Your task to perform on an android device: turn notification dots on Image 0: 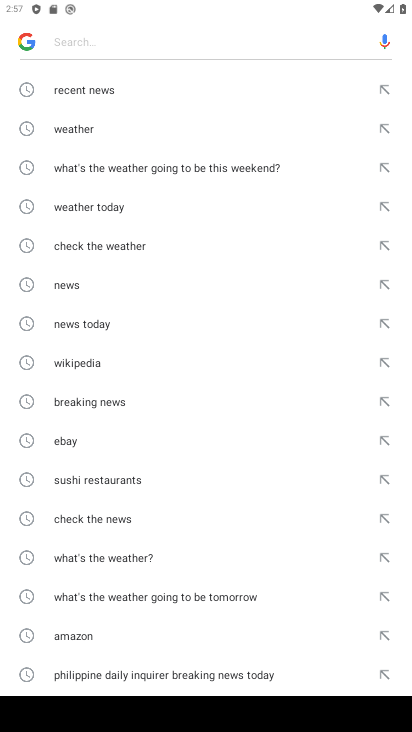
Step 0: press back button
Your task to perform on an android device: turn notification dots on Image 1: 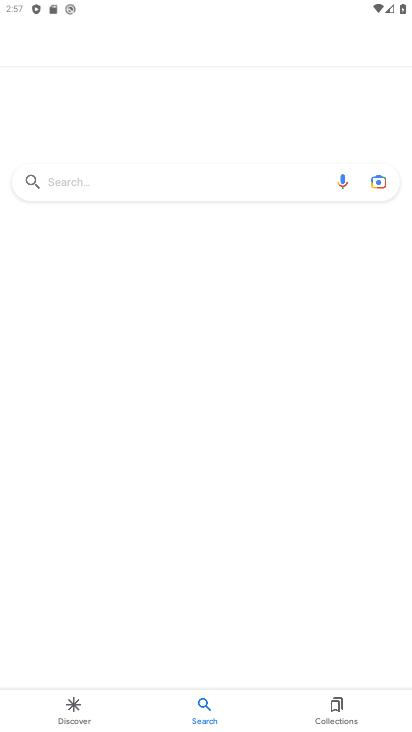
Step 1: press back button
Your task to perform on an android device: turn notification dots on Image 2: 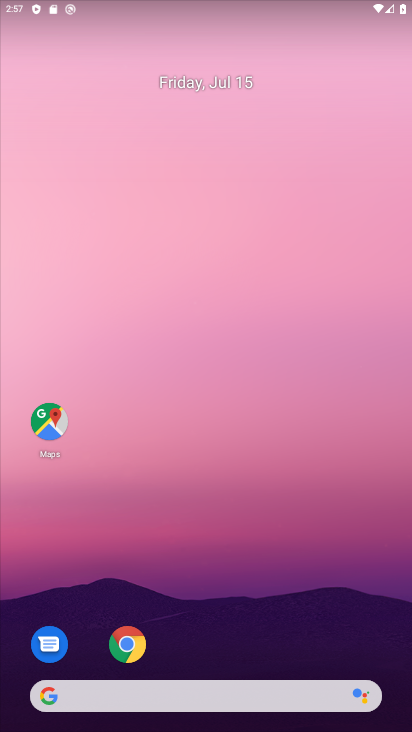
Step 2: drag from (262, 648) to (319, 2)
Your task to perform on an android device: turn notification dots on Image 3: 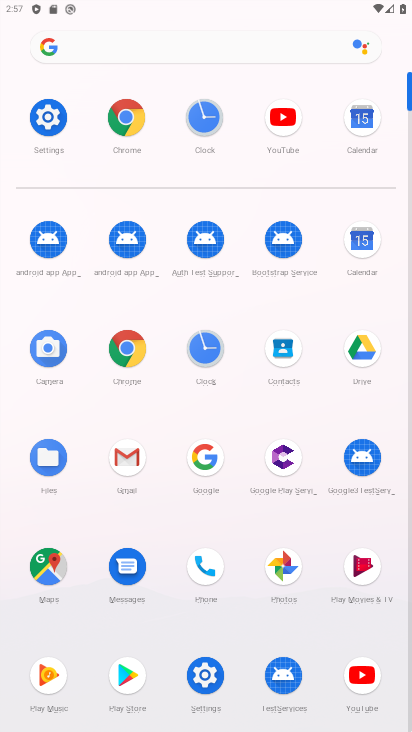
Step 3: click (56, 124)
Your task to perform on an android device: turn notification dots on Image 4: 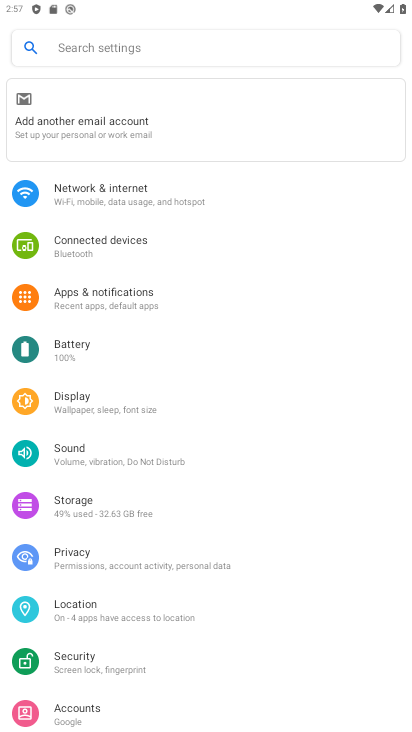
Step 4: click (117, 294)
Your task to perform on an android device: turn notification dots on Image 5: 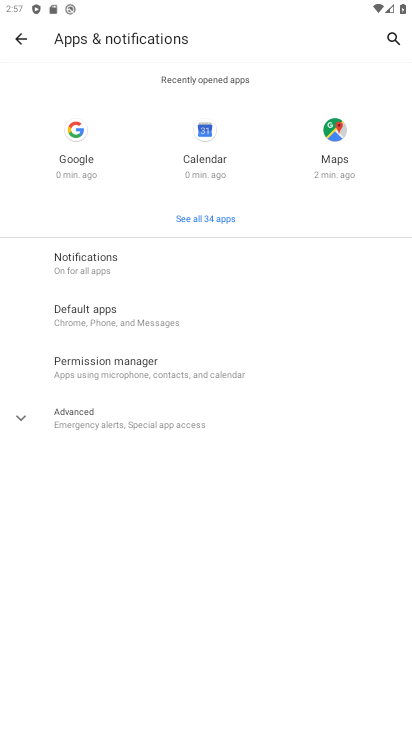
Step 5: click (95, 258)
Your task to perform on an android device: turn notification dots on Image 6: 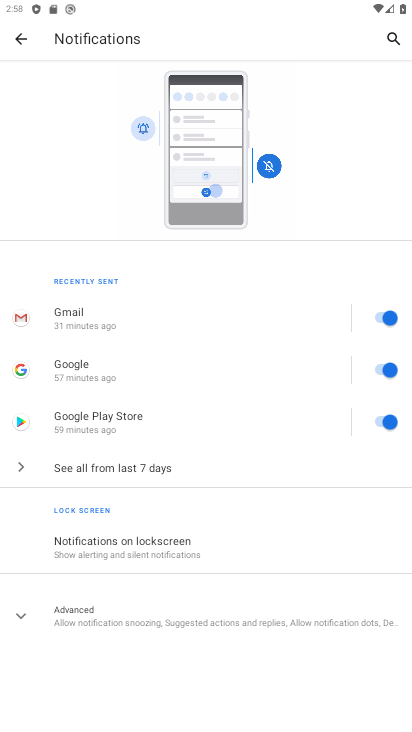
Step 6: click (183, 605)
Your task to perform on an android device: turn notification dots on Image 7: 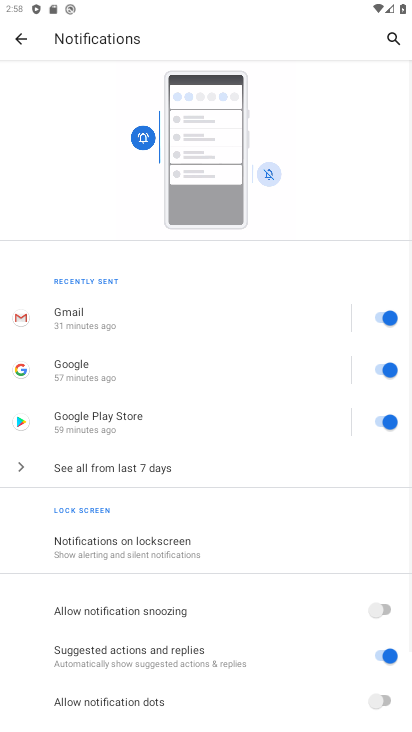
Step 7: drag from (185, 655) to (229, 389)
Your task to perform on an android device: turn notification dots on Image 8: 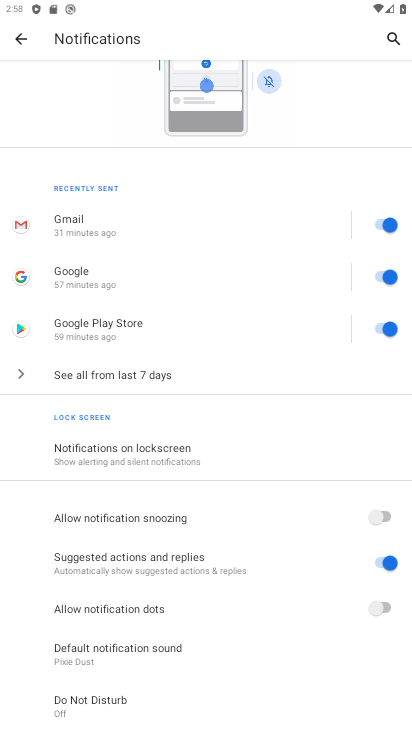
Step 8: click (386, 599)
Your task to perform on an android device: turn notification dots on Image 9: 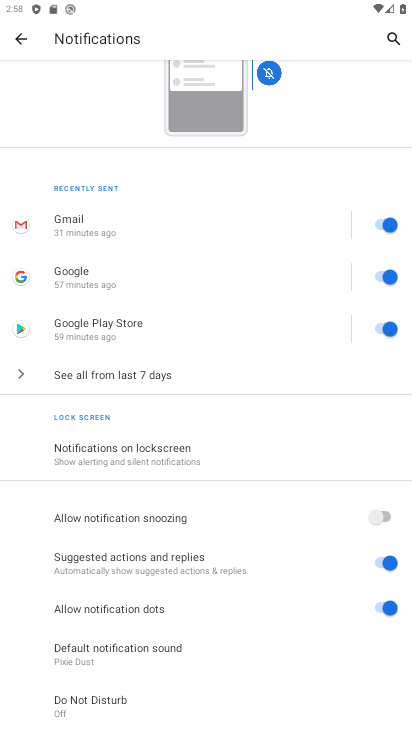
Step 9: task complete